Your task to perform on an android device: Search for Mexican restaurants on Maps Image 0: 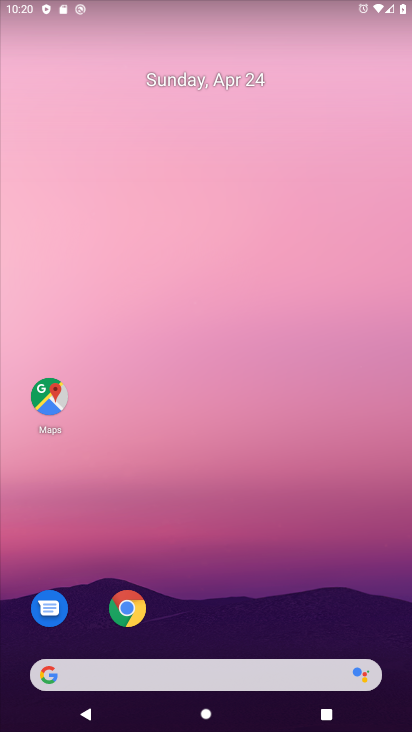
Step 0: drag from (236, 503) to (196, 15)
Your task to perform on an android device: Search for Mexican restaurants on Maps Image 1: 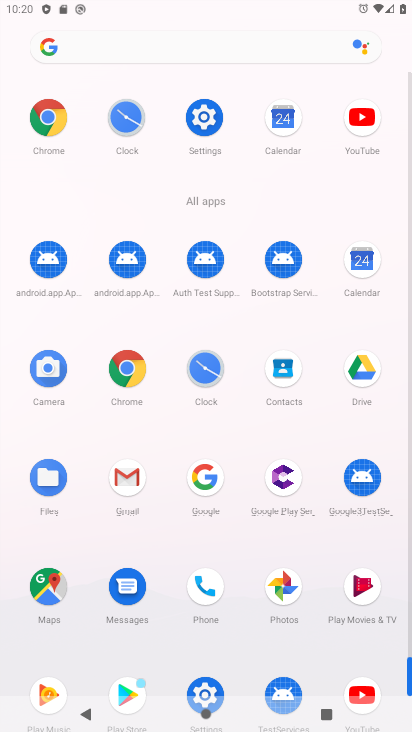
Step 1: drag from (18, 498) to (0, 204)
Your task to perform on an android device: Search for Mexican restaurants on Maps Image 2: 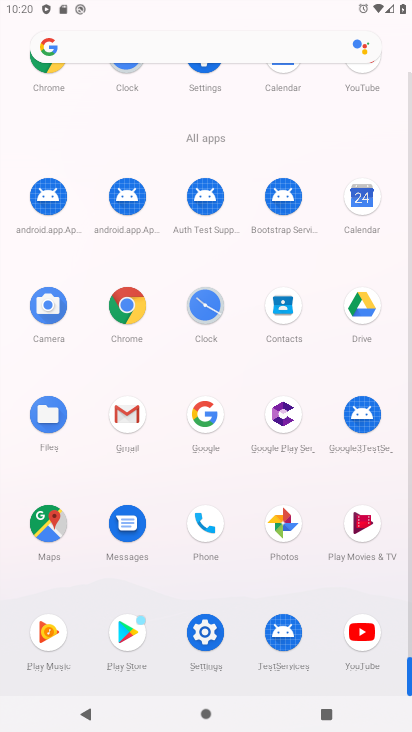
Step 2: click (50, 512)
Your task to perform on an android device: Search for Mexican restaurants on Maps Image 3: 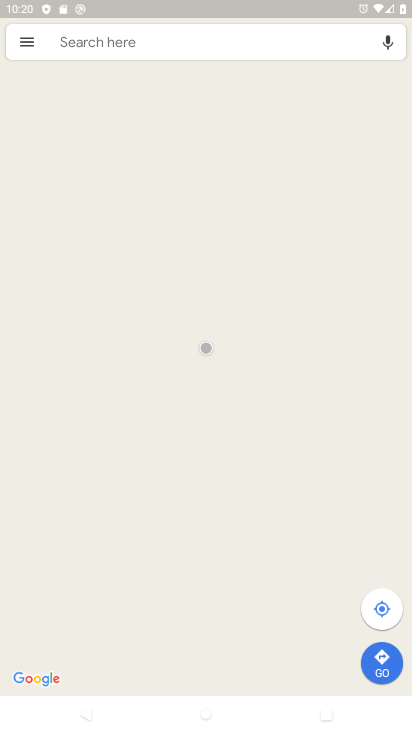
Step 3: click (167, 43)
Your task to perform on an android device: Search for Mexican restaurants on Maps Image 4: 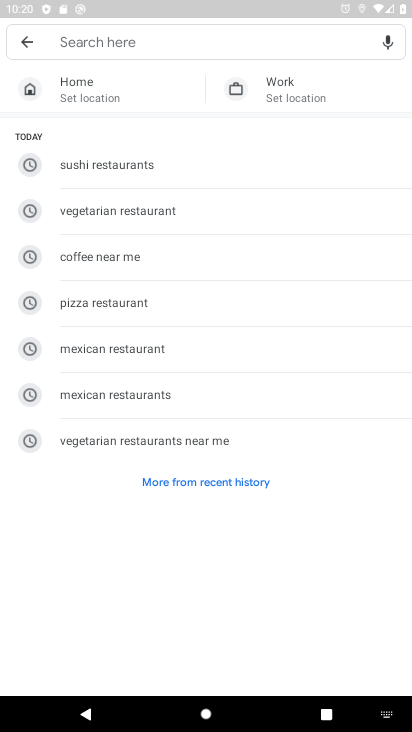
Step 4: type " Mexican restaurants "
Your task to perform on an android device: Search for Mexican restaurants on Maps Image 5: 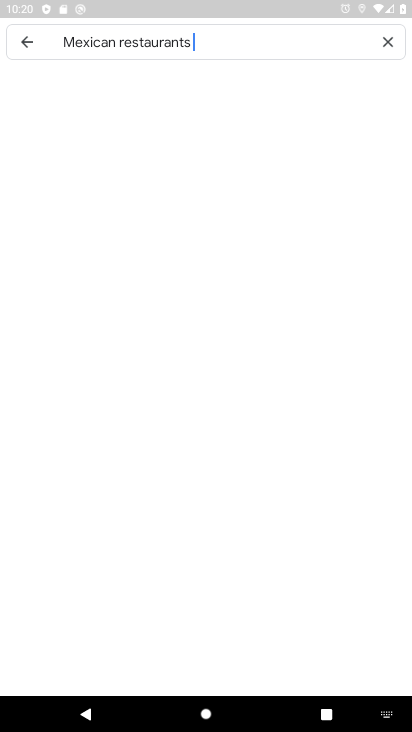
Step 5: type ""
Your task to perform on an android device: Search for Mexican restaurants on Maps Image 6: 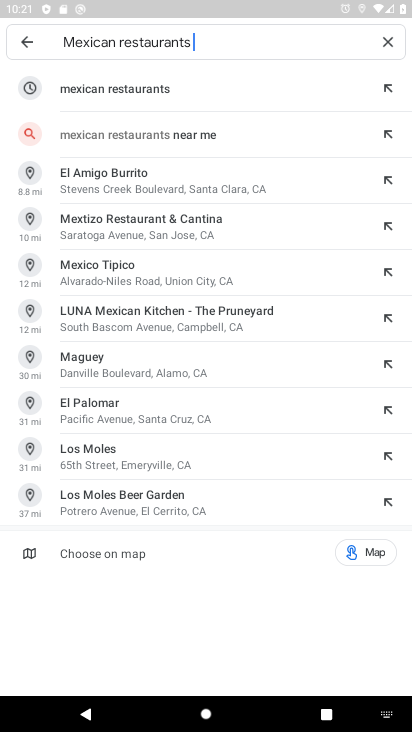
Step 6: click (135, 92)
Your task to perform on an android device: Search for Mexican restaurants on Maps Image 7: 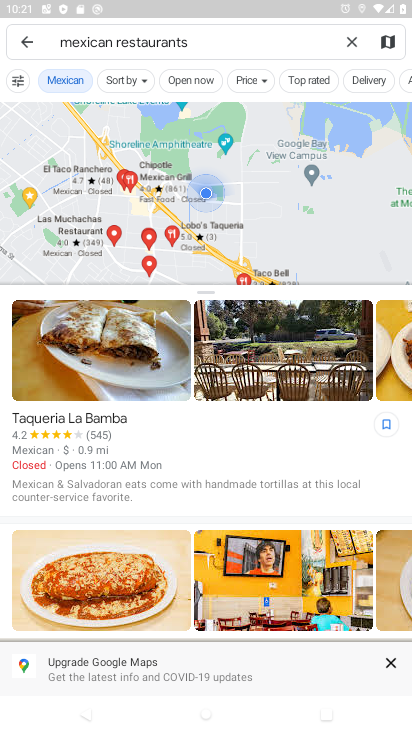
Step 7: task complete